Your task to perform on an android device: see sites visited before in the chrome app Image 0: 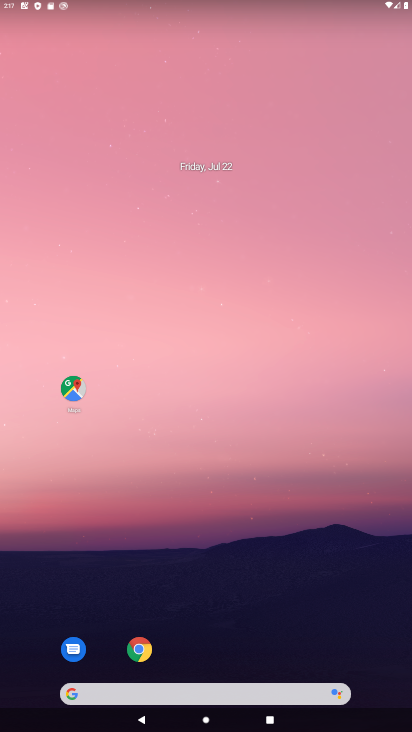
Step 0: drag from (360, 28) to (218, 0)
Your task to perform on an android device: see sites visited before in the chrome app Image 1: 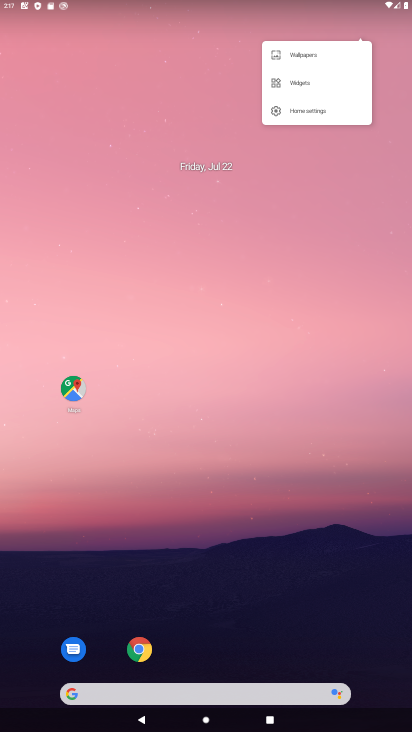
Step 1: drag from (196, 659) to (290, 47)
Your task to perform on an android device: see sites visited before in the chrome app Image 2: 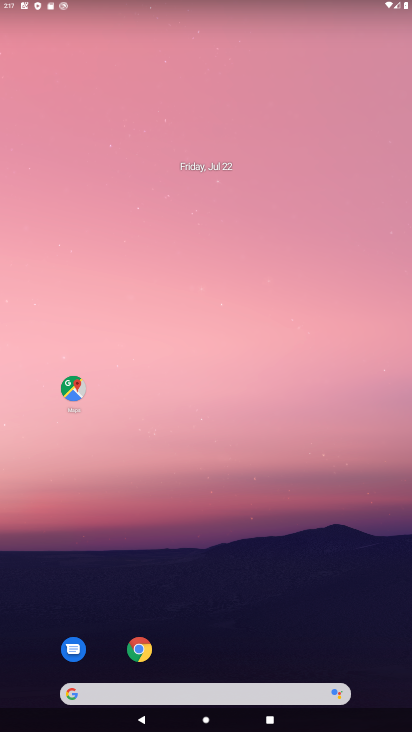
Step 2: drag from (167, 664) to (223, 97)
Your task to perform on an android device: see sites visited before in the chrome app Image 3: 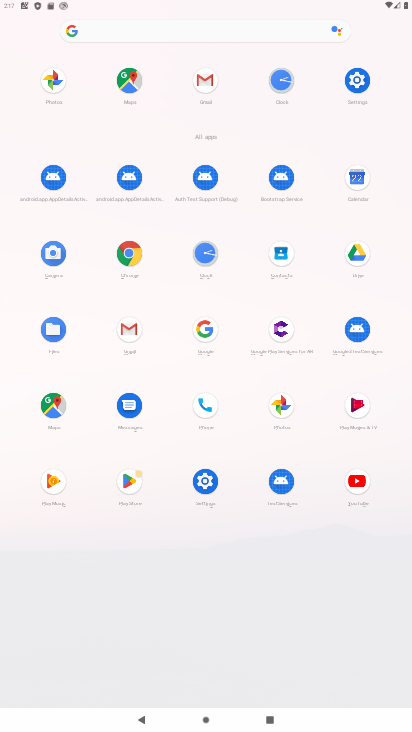
Step 3: click (129, 250)
Your task to perform on an android device: see sites visited before in the chrome app Image 4: 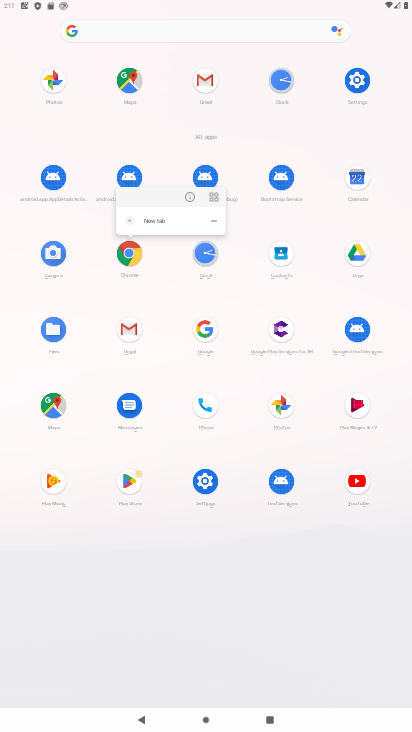
Step 4: click (190, 195)
Your task to perform on an android device: see sites visited before in the chrome app Image 5: 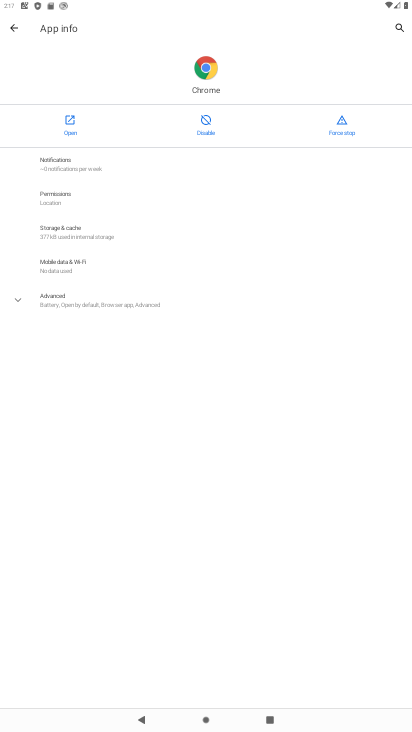
Step 5: click (68, 125)
Your task to perform on an android device: see sites visited before in the chrome app Image 6: 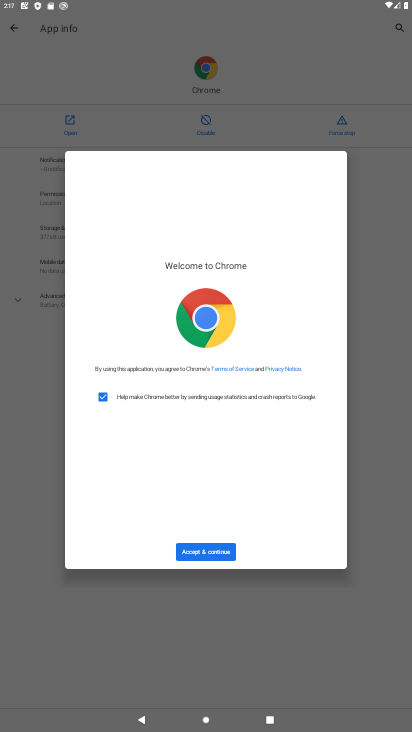
Step 6: click (199, 549)
Your task to perform on an android device: see sites visited before in the chrome app Image 7: 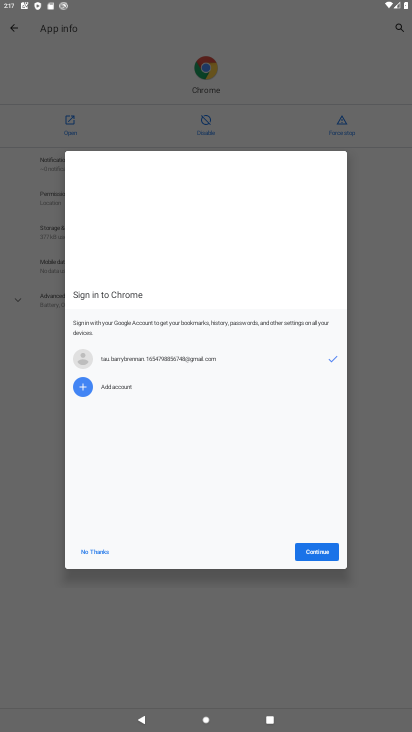
Step 7: click (325, 552)
Your task to perform on an android device: see sites visited before in the chrome app Image 8: 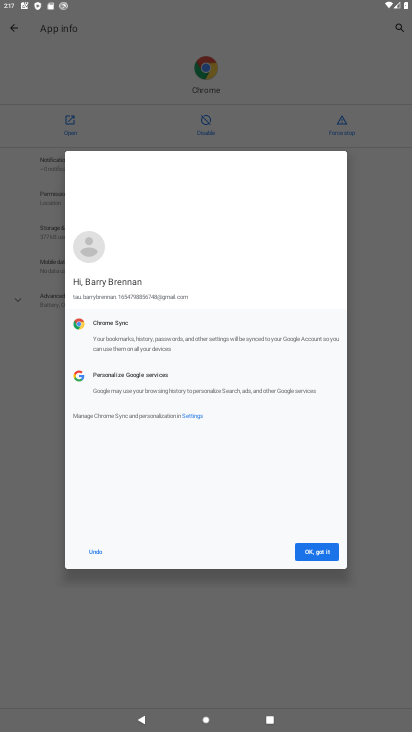
Step 8: click (324, 551)
Your task to perform on an android device: see sites visited before in the chrome app Image 9: 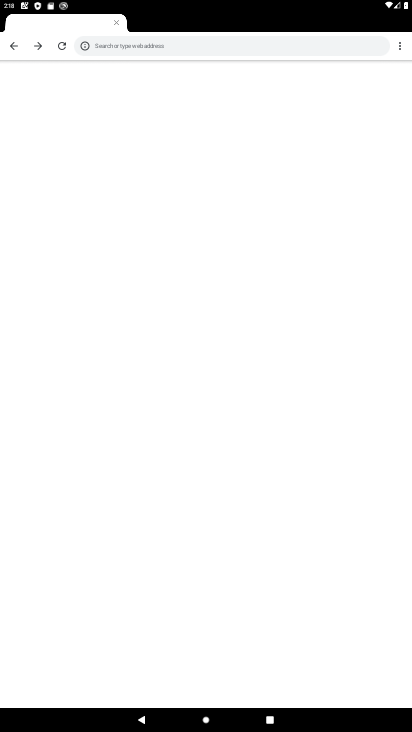
Step 9: drag from (230, 579) to (239, 289)
Your task to perform on an android device: see sites visited before in the chrome app Image 10: 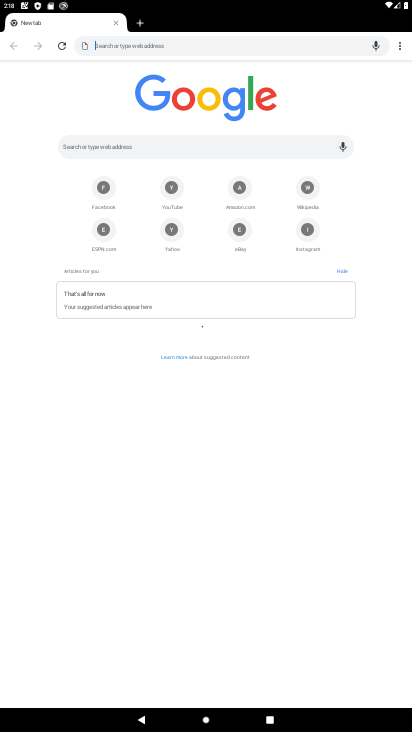
Step 10: drag from (210, 533) to (214, 313)
Your task to perform on an android device: see sites visited before in the chrome app Image 11: 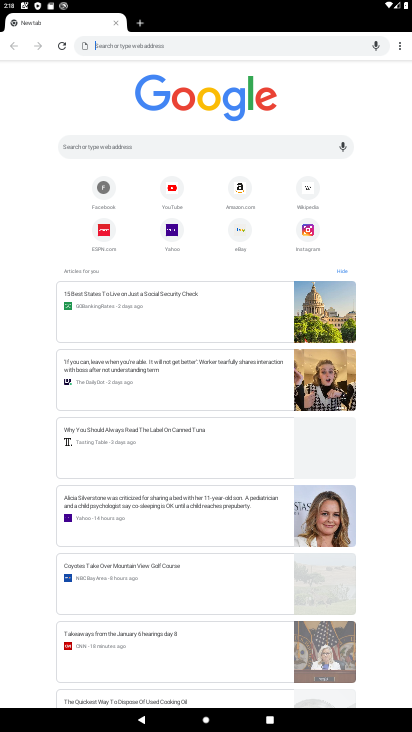
Step 11: drag from (394, 44) to (324, 136)
Your task to perform on an android device: see sites visited before in the chrome app Image 12: 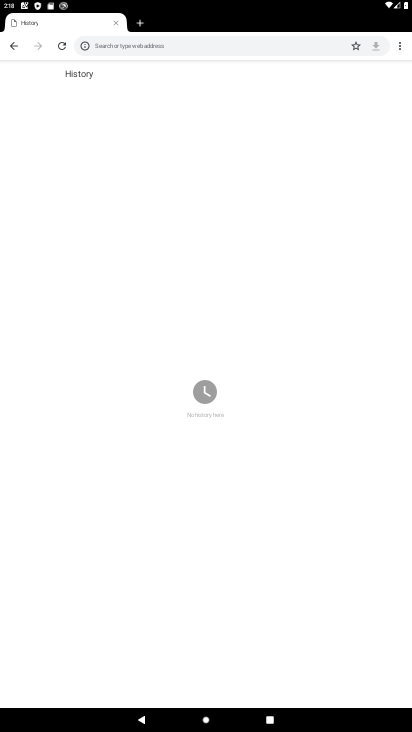
Step 12: drag from (287, 511) to (345, 269)
Your task to perform on an android device: see sites visited before in the chrome app Image 13: 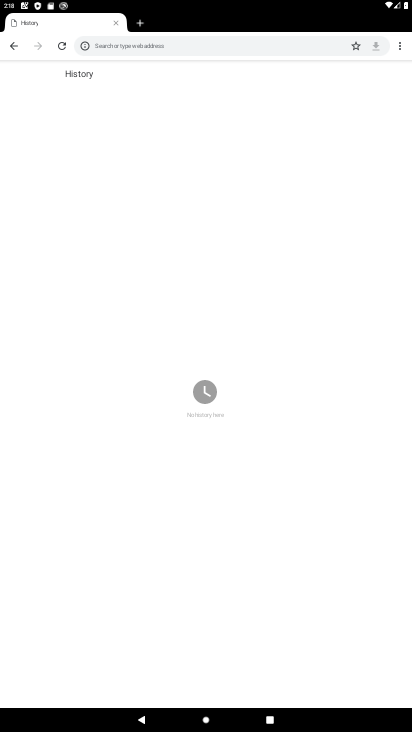
Step 13: drag from (86, 264) to (259, 639)
Your task to perform on an android device: see sites visited before in the chrome app Image 14: 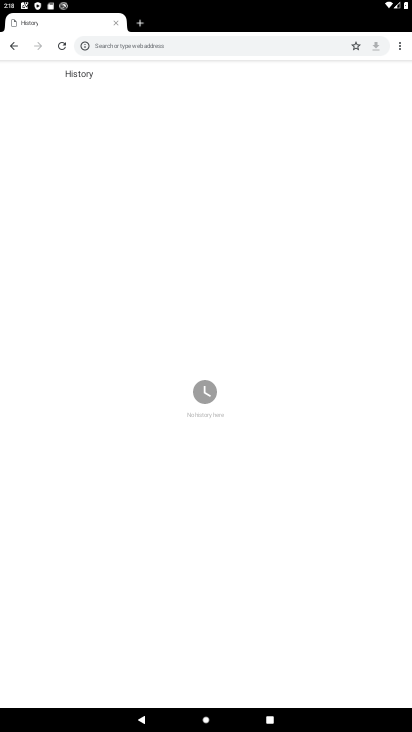
Step 14: drag from (298, 489) to (307, 438)
Your task to perform on an android device: see sites visited before in the chrome app Image 15: 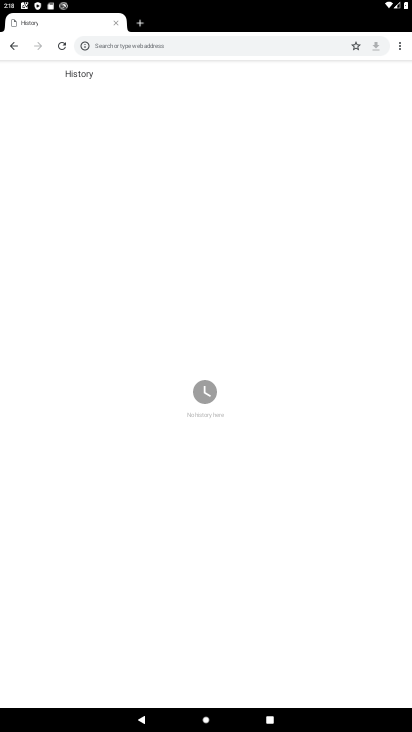
Step 15: click (255, 199)
Your task to perform on an android device: see sites visited before in the chrome app Image 16: 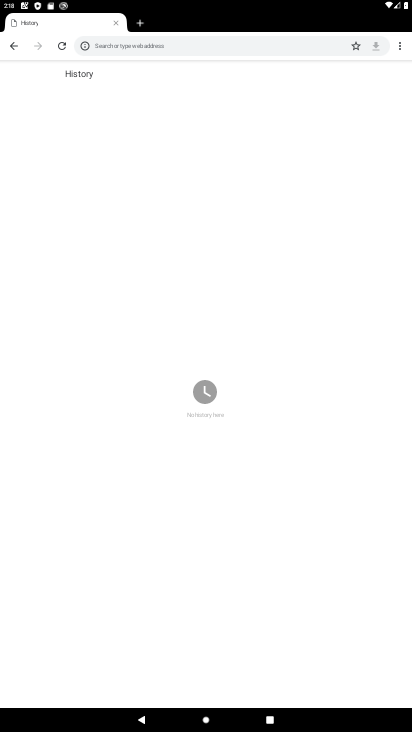
Step 16: click (259, 197)
Your task to perform on an android device: see sites visited before in the chrome app Image 17: 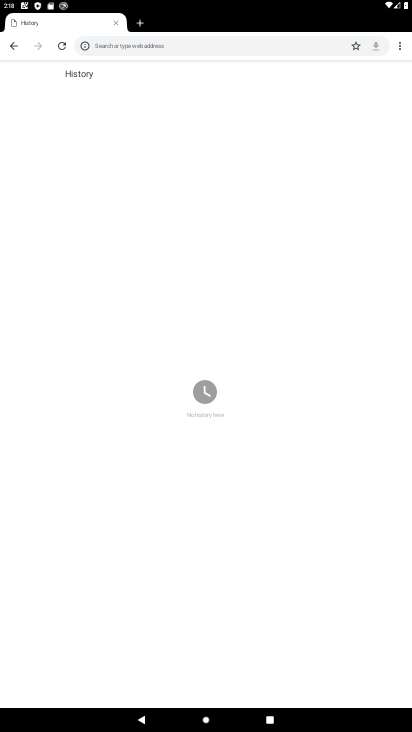
Step 17: click (216, 212)
Your task to perform on an android device: see sites visited before in the chrome app Image 18: 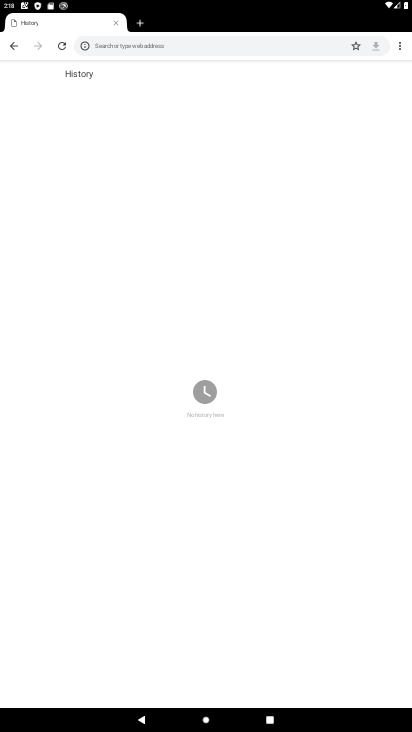
Step 18: click (216, 212)
Your task to perform on an android device: see sites visited before in the chrome app Image 19: 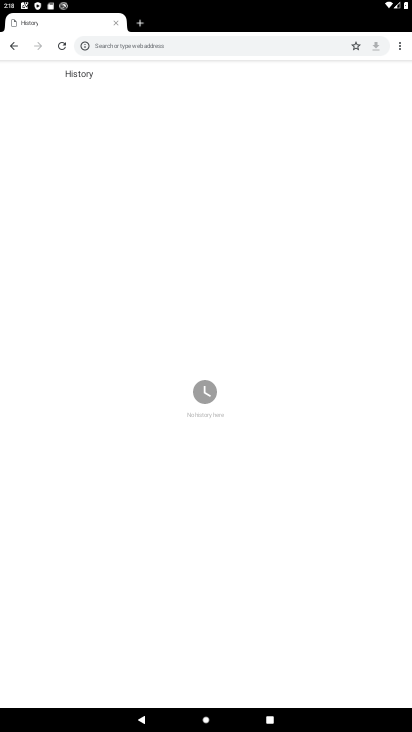
Step 19: click (216, 212)
Your task to perform on an android device: see sites visited before in the chrome app Image 20: 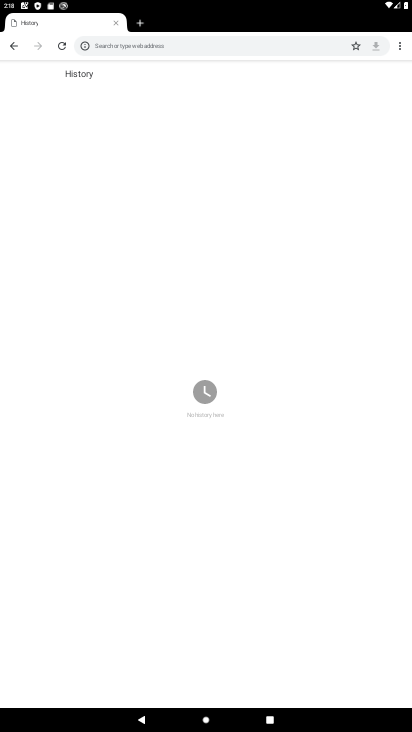
Step 20: drag from (230, 336) to (310, 586)
Your task to perform on an android device: see sites visited before in the chrome app Image 21: 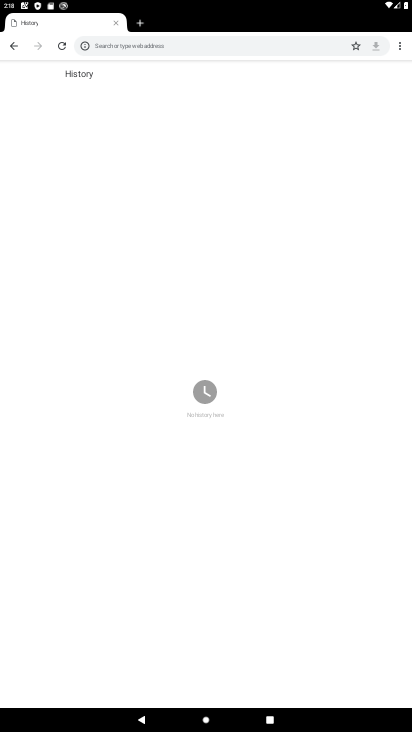
Step 21: drag from (316, 543) to (310, 299)
Your task to perform on an android device: see sites visited before in the chrome app Image 22: 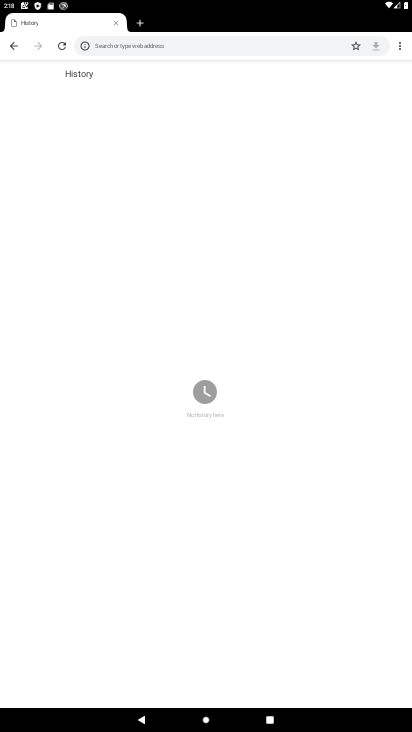
Step 22: click (295, 247)
Your task to perform on an android device: see sites visited before in the chrome app Image 23: 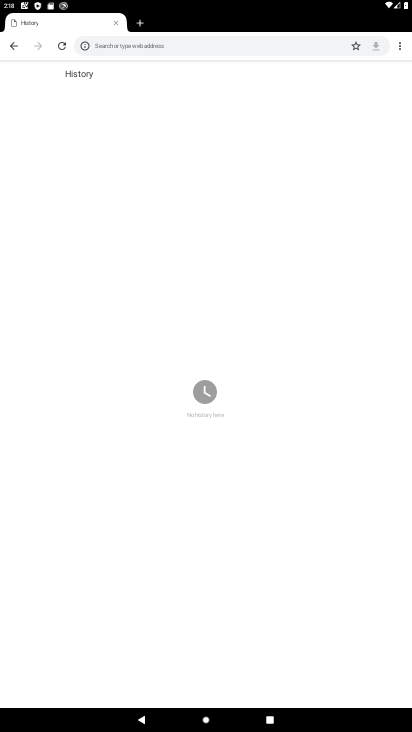
Step 23: click (216, 223)
Your task to perform on an android device: see sites visited before in the chrome app Image 24: 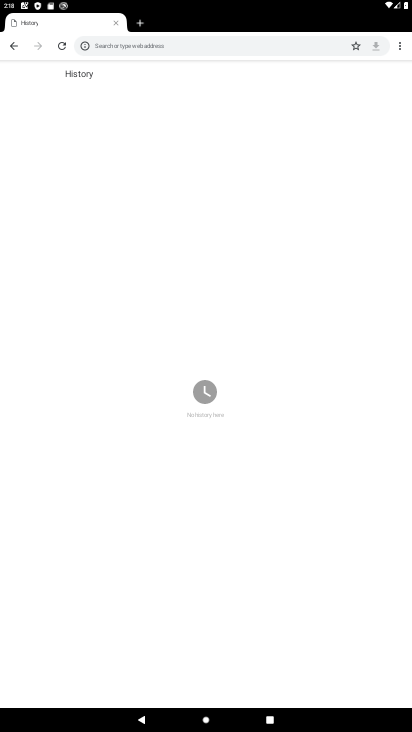
Step 24: click (38, 130)
Your task to perform on an android device: see sites visited before in the chrome app Image 25: 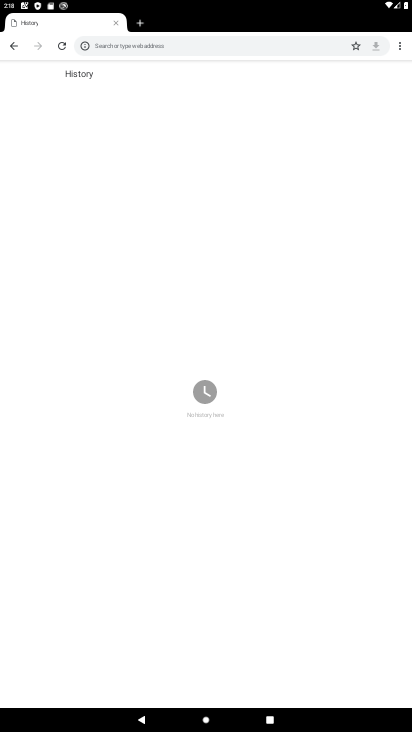
Step 25: click (303, 218)
Your task to perform on an android device: see sites visited before in the chrome app Image 26: 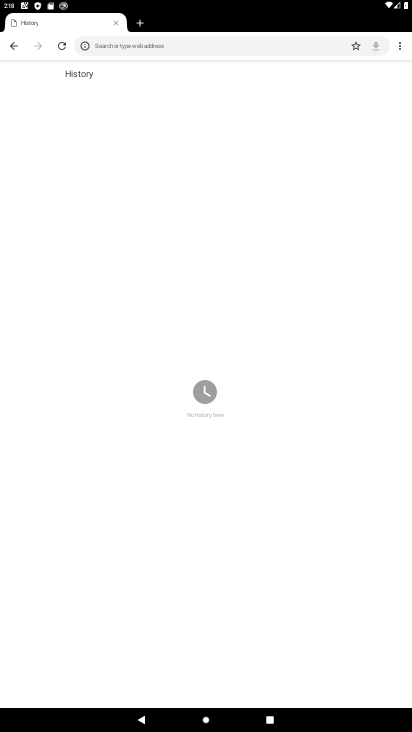
Step 26: task complete